Your task to perform on an android device: refresh tabs in the chrome app Image 0: 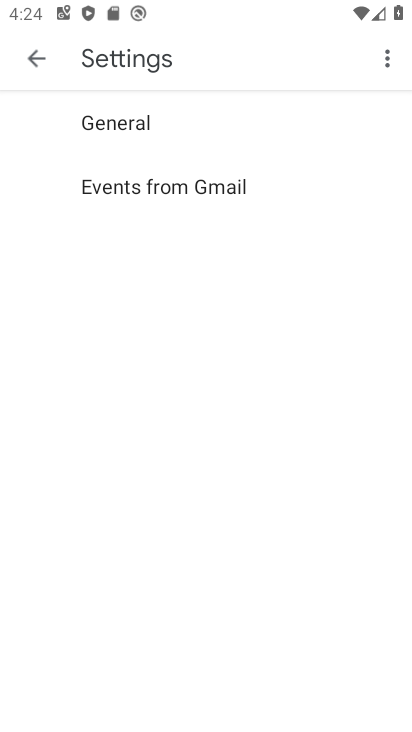
Step 0: press home button
Your task to perform on an android device: refresh tabs in the chrome app Image 1: 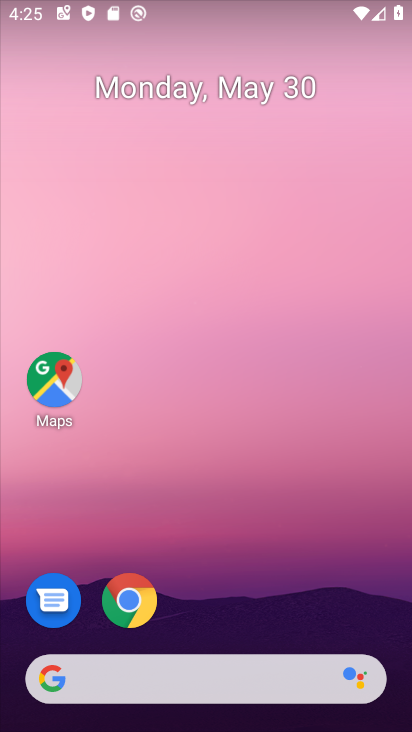
Step 1: click (124, 601)
Your task to perform on an android device: refresh tabs in the chrome app Image 2: 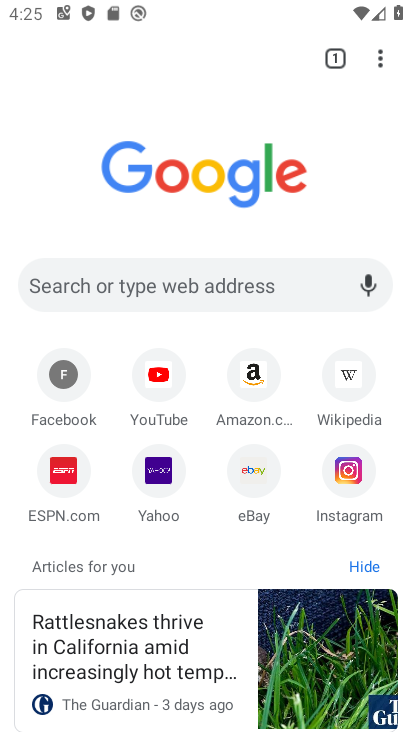
Step 2: click (379, 65)
Your task to perform on an android device: refresh tabs in the chrome app Image 3: 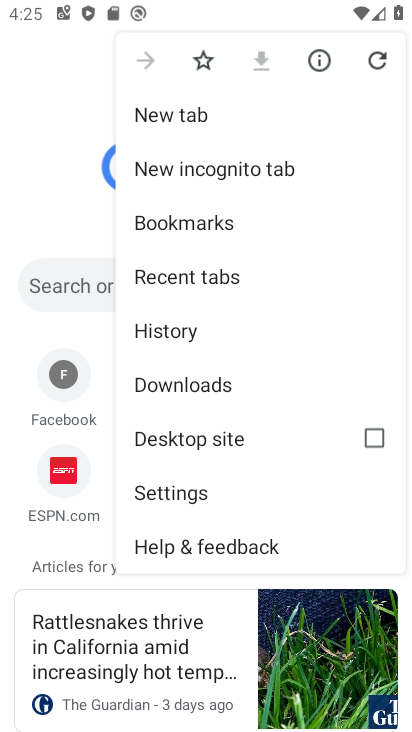
Step 3: click (375, 56)
Your task to perform on an android device: refresh tabs in the chrome app Image 4: 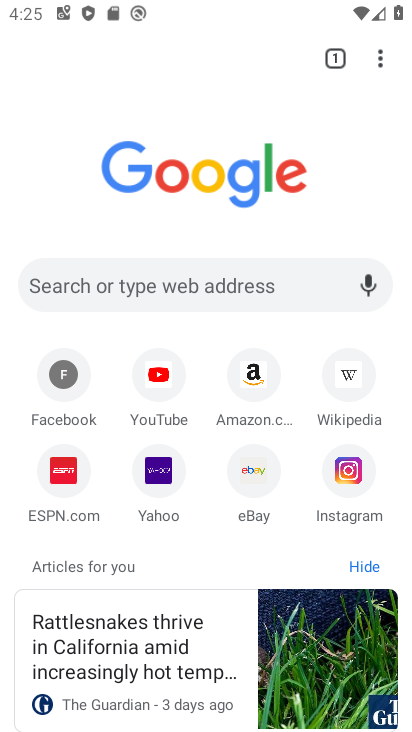
Step 4: task complete